Your task to perform on an android device: turn on improve location accuracy Image 0: 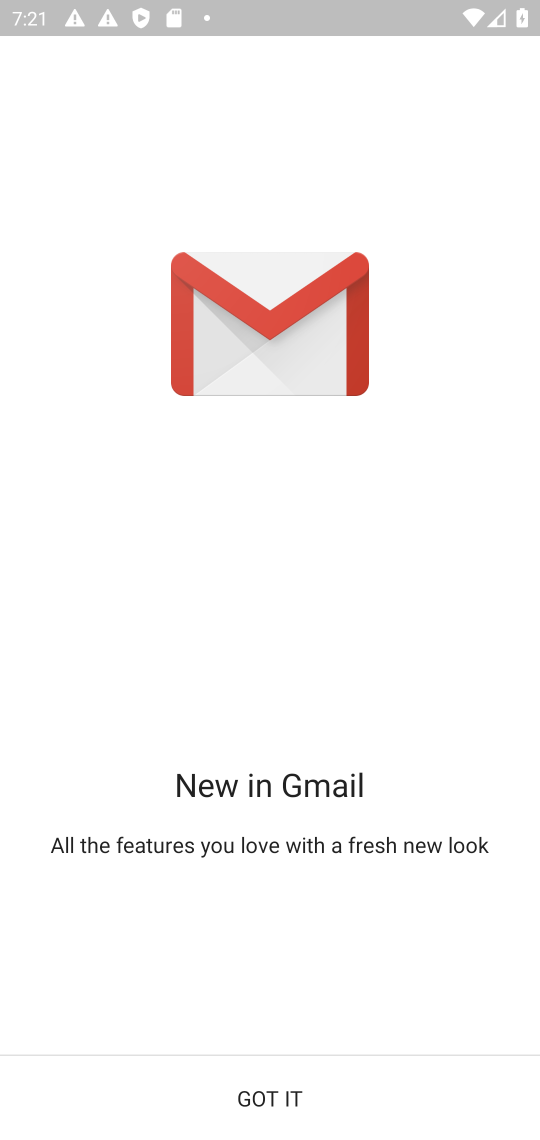
Step 0: press home button
Your task to perform on an android device: turn on improve location accuracy Image 1: 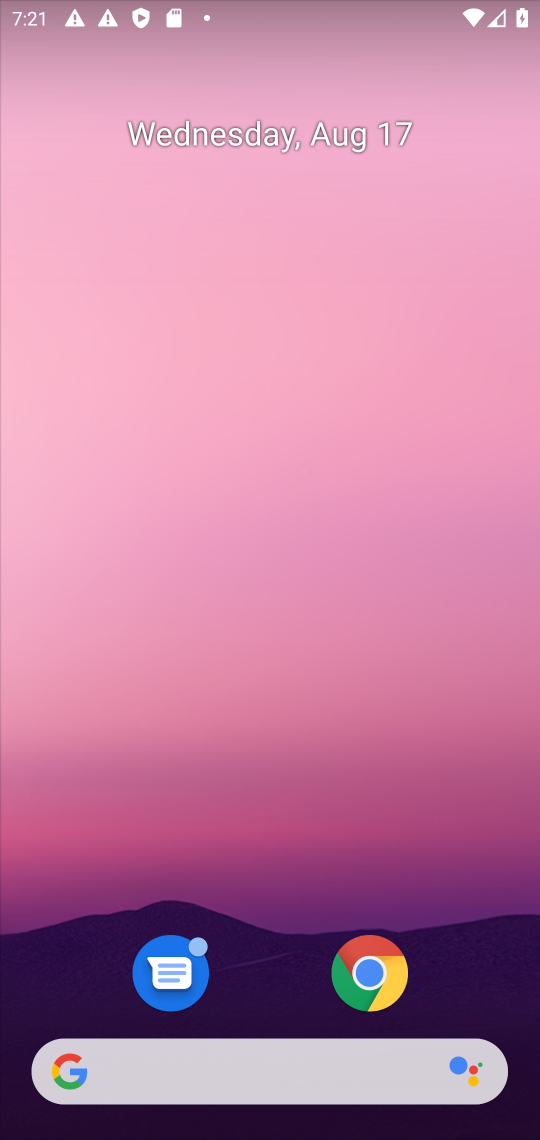
Step 1: drag from (300, 1058) to (508, 241)
Your task to perform on an android device: turn on improve location accuracy Image 2: 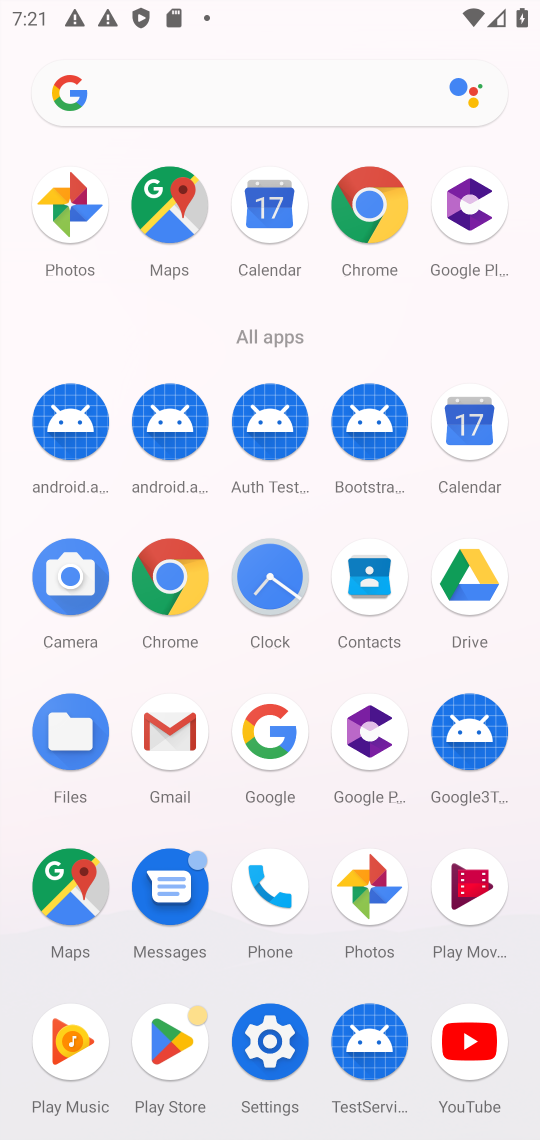
Step 2: drag from (273, 1051) to (374, 637)
Your task to perform on an android device: turn on improve location accuracy Image 3: 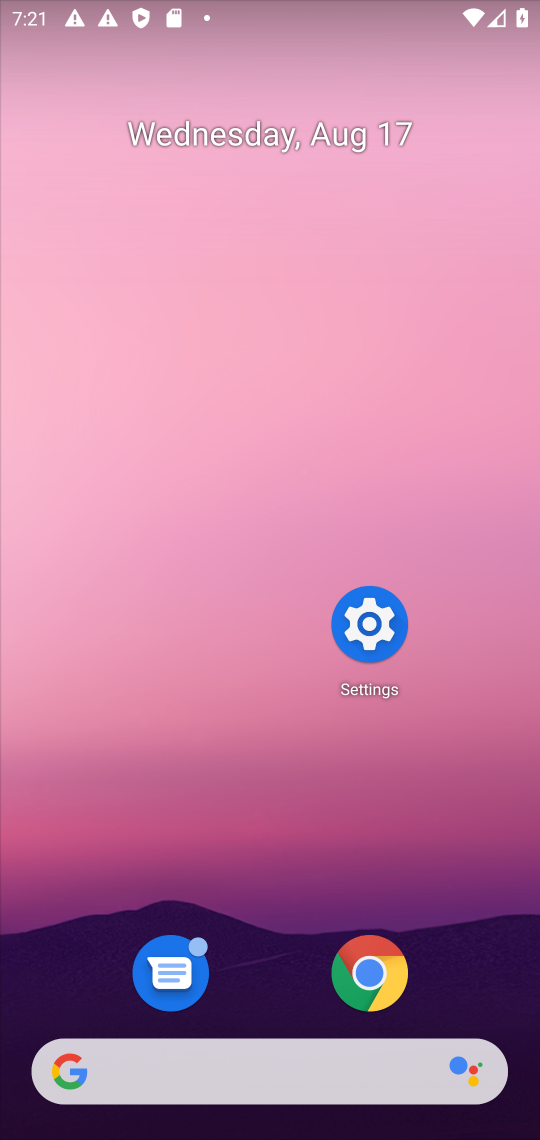
Step 3: click (378, 628)
Your task to perform on an android device: turn on improve location accuracy Image 4: 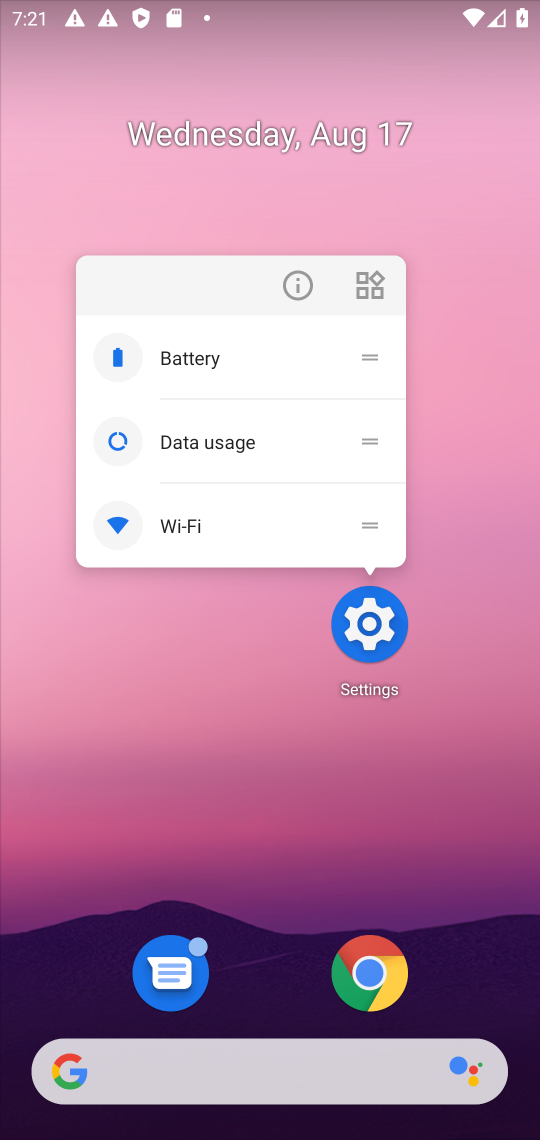
Step 4: click (372, 622)
Your task to perform on an android device: turn on improve location accuracy Image 5: 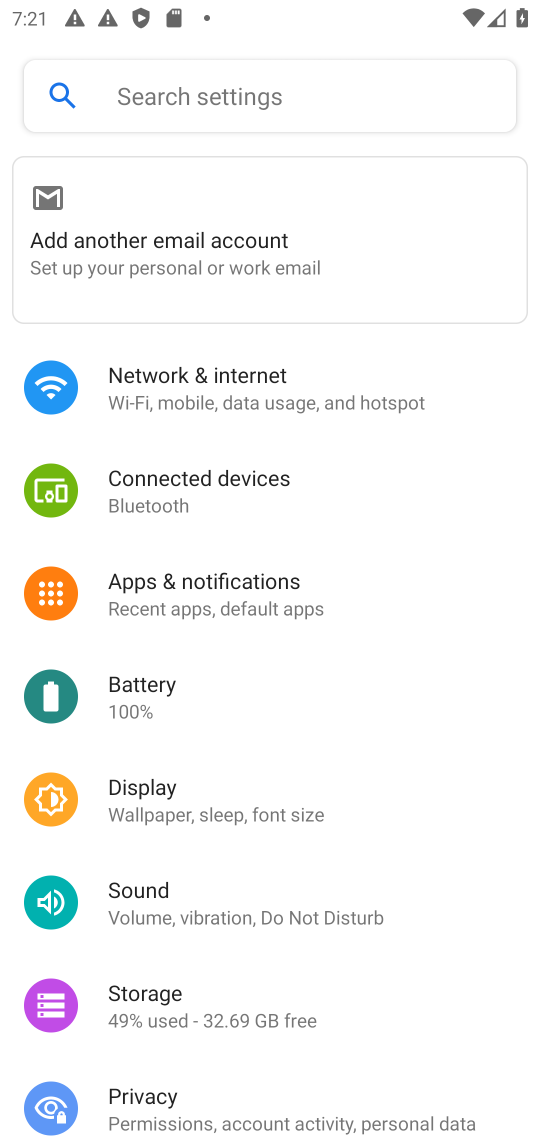
Step 5: drag from (260, 894) to (419, 398)
Your task to perform on an android device: turn on improve location accuracy Image 6: 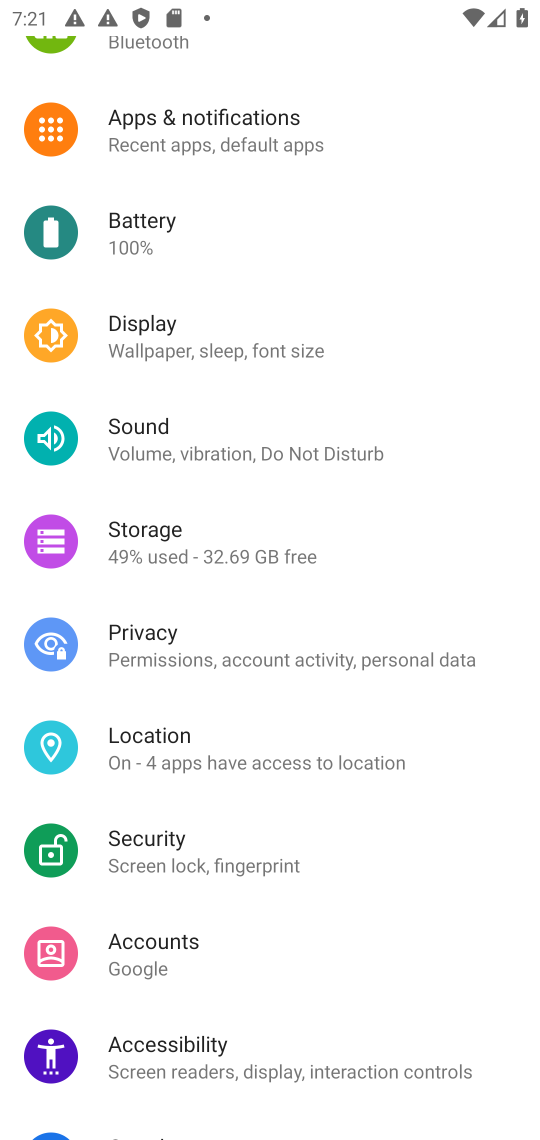
Step 6: click (161, 747)
Your task to perform on an android device: turn on improve location accuracy Image 7: 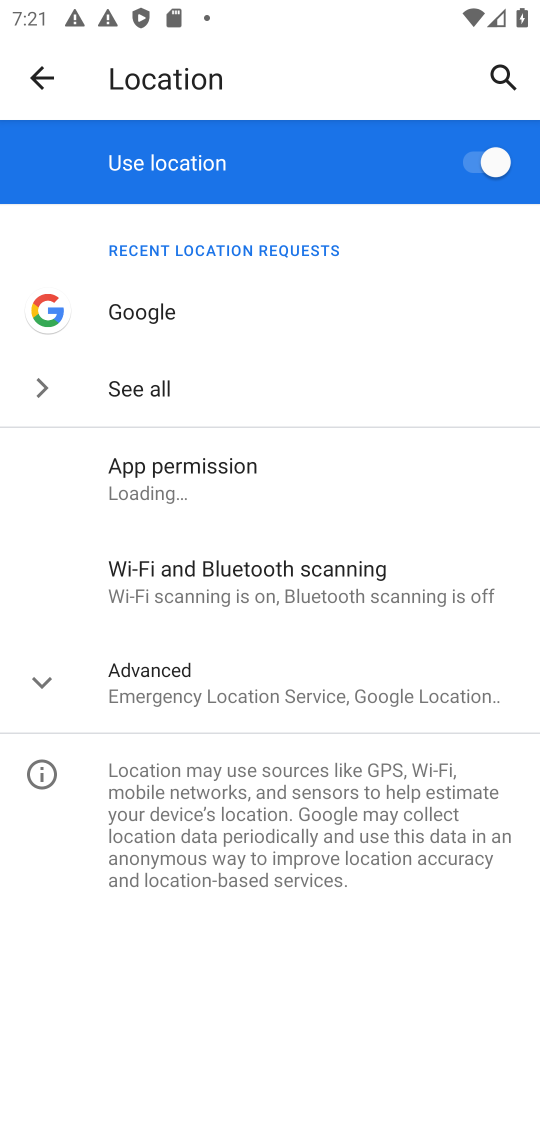
Step 7: click (174, 674)
Your task to perform on an android device: turn on improve location accuracy Image 8: 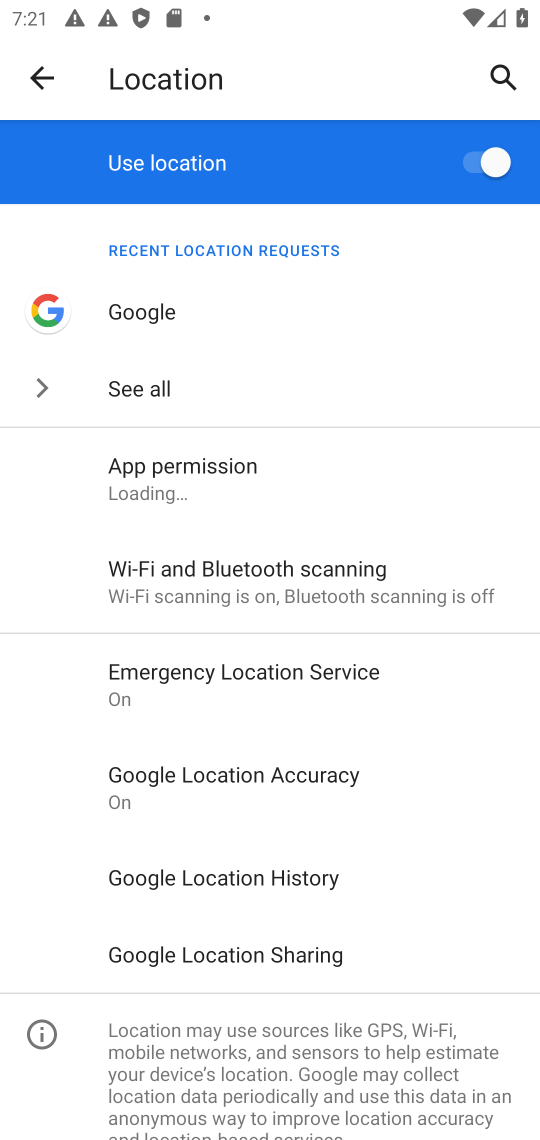
Step 8: click (273, 782)
Your task to perform on an android device: turn on improve location accuracy Image 9: 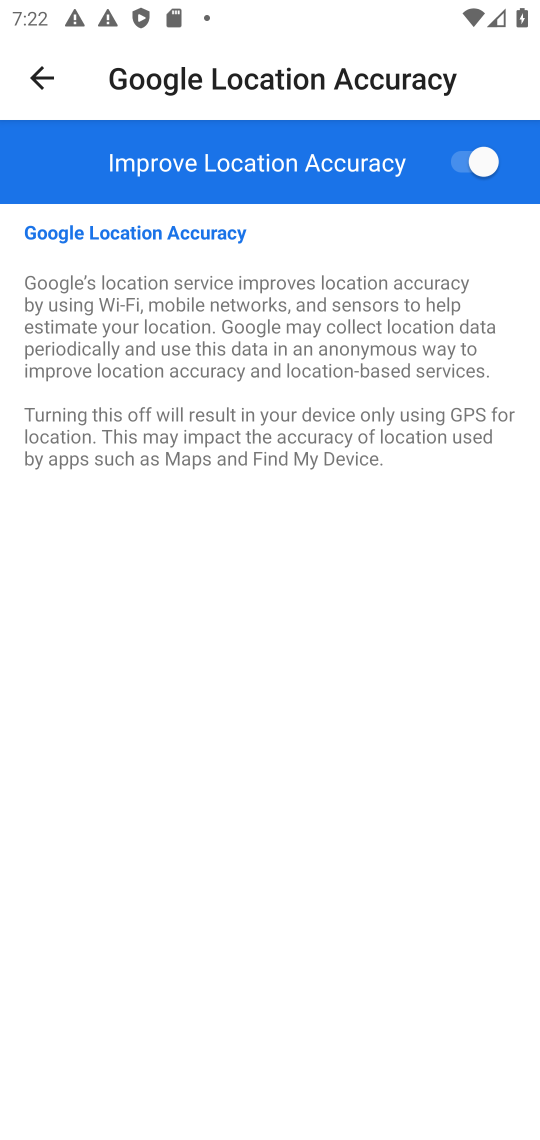
Step 9: task complete